Your task to perform on an android device: turn on showing notifications on the lock screen Image 0: 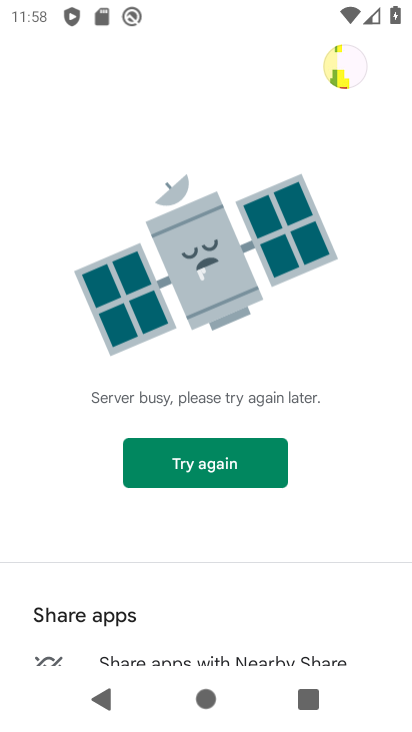
Step 0: press home button
Your task to perform on an android device: turn on showing notifications on the lock screen Image 1: 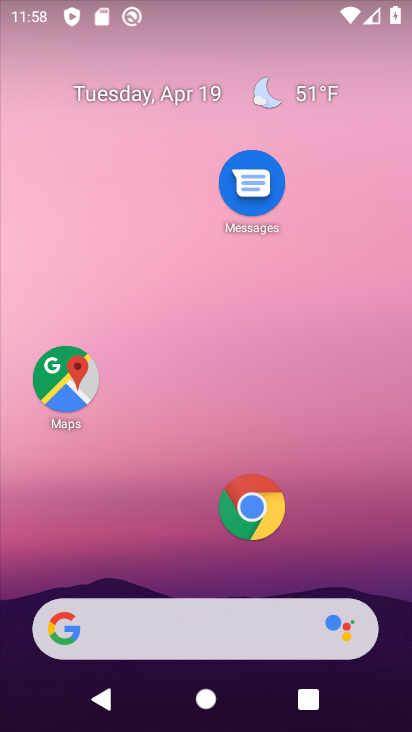
Step 1: drag from (164, 587) to (229, 216)
Your task to perform on an android device: turn on showing notifications on the lock screen Image 2: 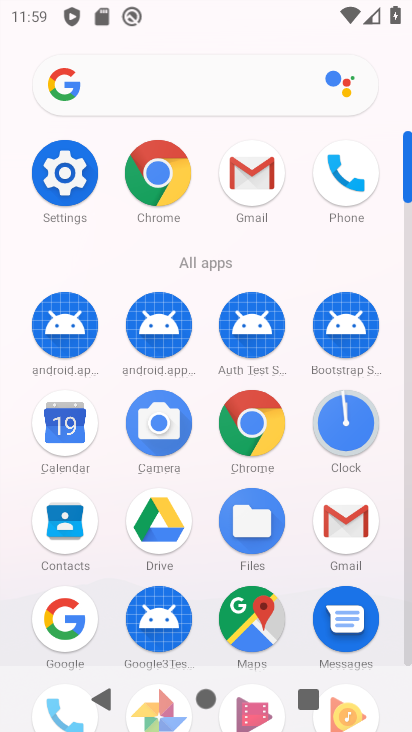
Step 2: click (63, 172)
Your task to perform on an android device: turn on showing notifications on the lock screen Image 3: 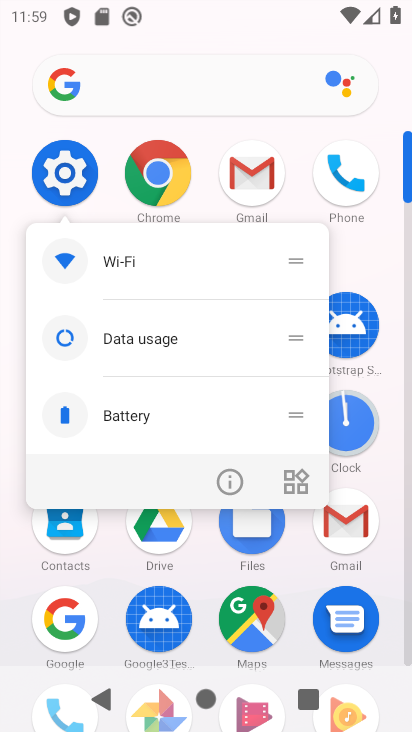
Step 3: click (63, 172)
Your task to perform on an android device: turn on showing notifications on the lock screen Image 4: 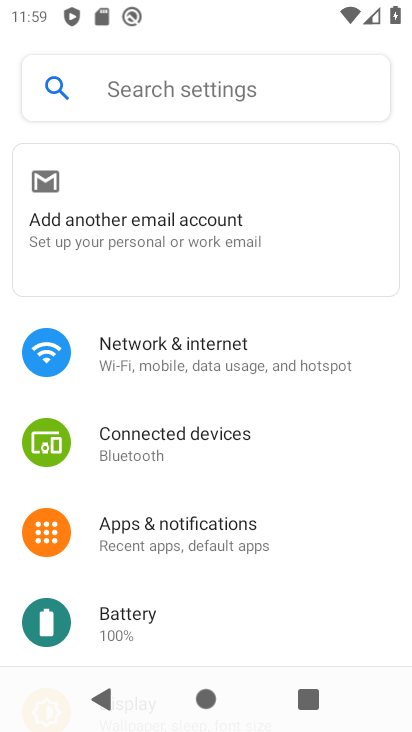
Step 4: click (165, 526)
Your task to perform on an android device: turn on showing notifications on the lock screen Image 5: 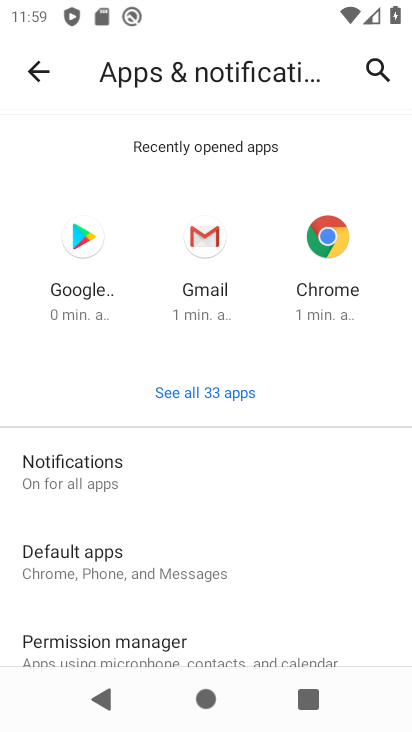
Step 5: click (83, 469)
Your task to perform on an android device: turn on showing notifications on the lock screen Image 6: 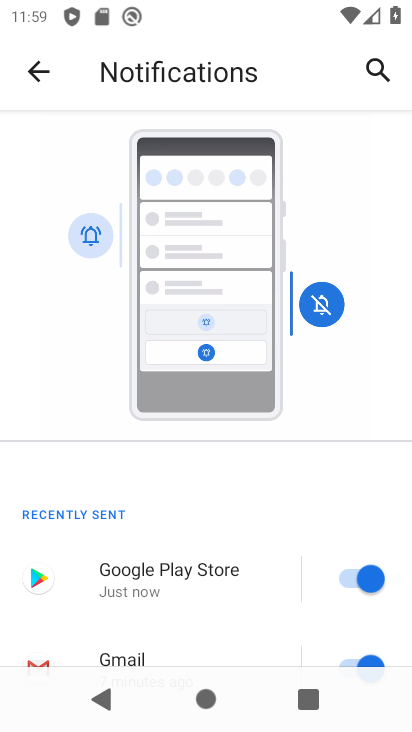
Step 6: drag from (125, 613) to (201, 394)
Your task to perform on an android device: turn on showing notifications on the lock screen Image 7: 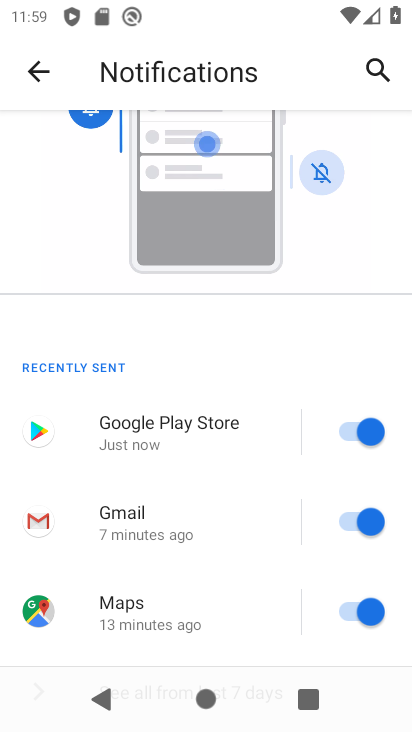
Step 7: drag from (174, 589) to (226, 372)
Your task to perform on an android device: turn on showing notifications on the lock screen Image 8: 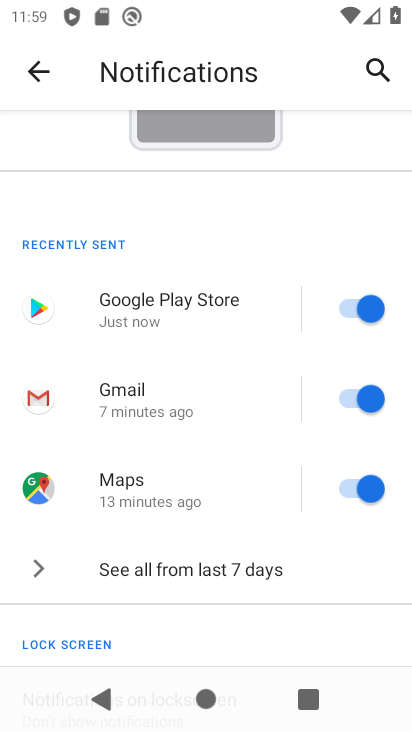
Step 8: drag from (155, 615) to (208, 430)
Your task to perform on an android device: turn on showing notifications on the lock screen Image 9: 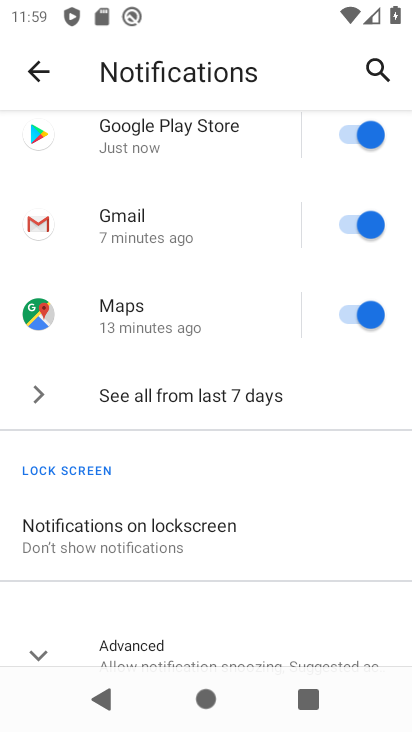
Step 9: click (159, 524)
Your task to perform on an android device: turn on showing notifications on the lock screen Image 10: 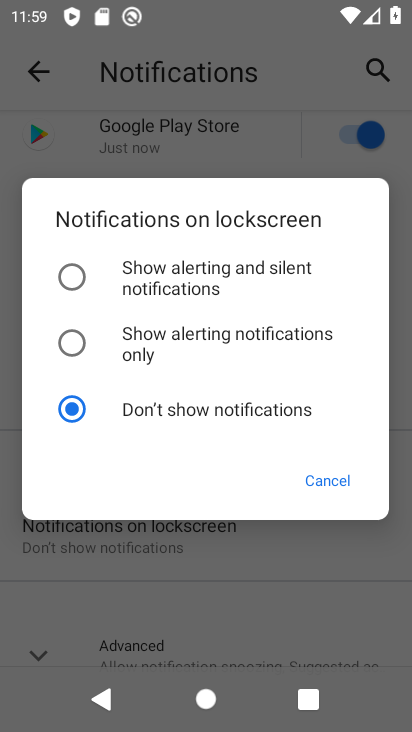
Step 10: click (78, 271)
Your task to perform on an android device: turn on showing notifications on the lock screen Image 11: 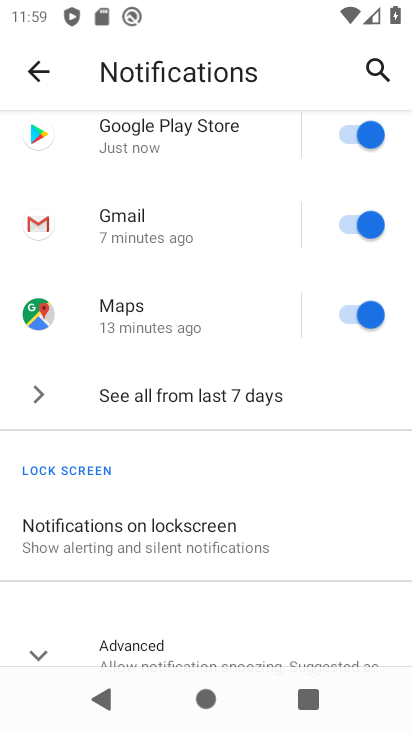
Step 11: task complete